Your task to perform on an android device: Go to battery settings Image 0: 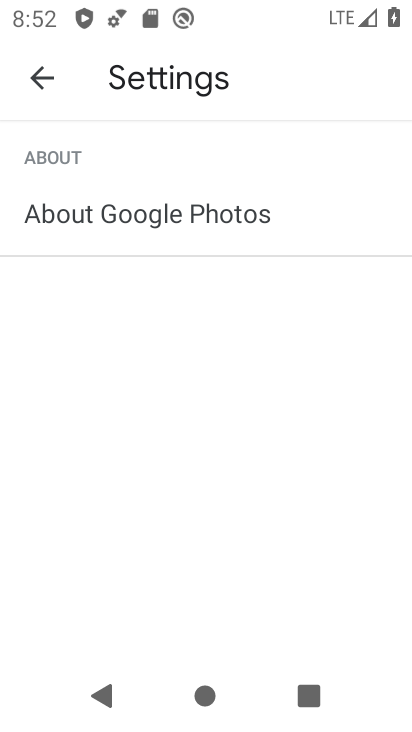
Step 0: press back button
Your task to perform on an android device: Go to battery settings Image 1: 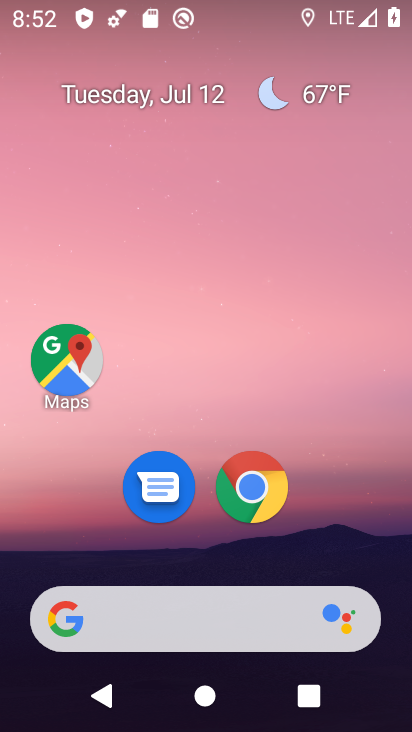
Step 1: drag from (159, 570) to (211, 1)
Your task to perform on an android device: Go to battery settings Image 2: 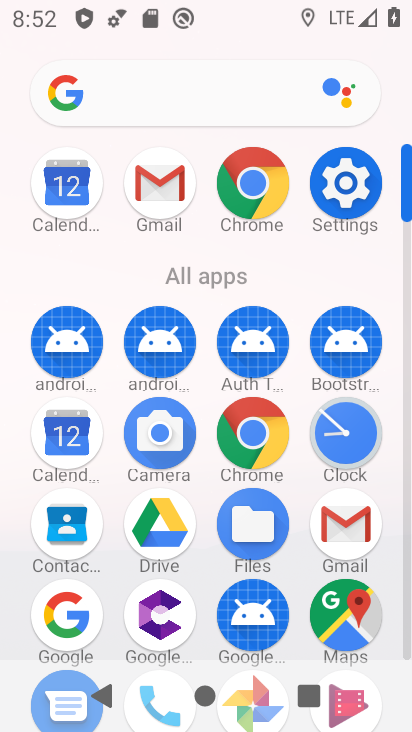
Step 2: click (351, 180)
Your task to perform on an android device: Go to battery settings Image 3: 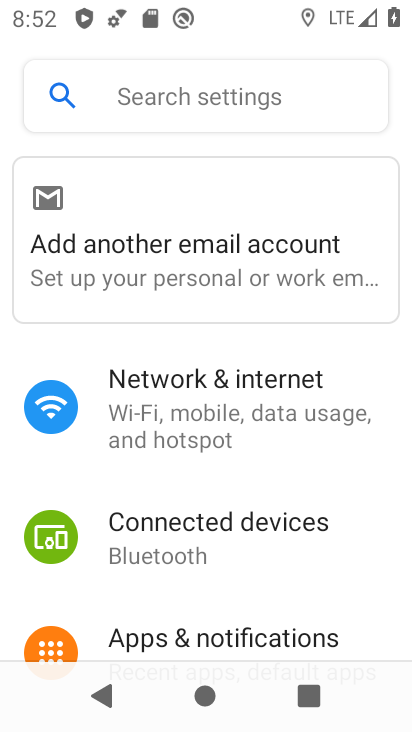
Step 3: drag from (150, 588) to (301, 45)
Your task to perform on an android device: Go to battery settings Image 4: 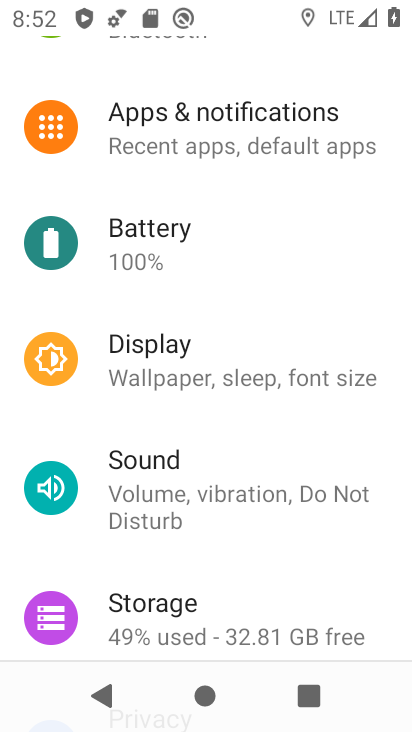
Step 4: click (132, 227)
Your task to perform on an android device: Go to battery settings Image 5: 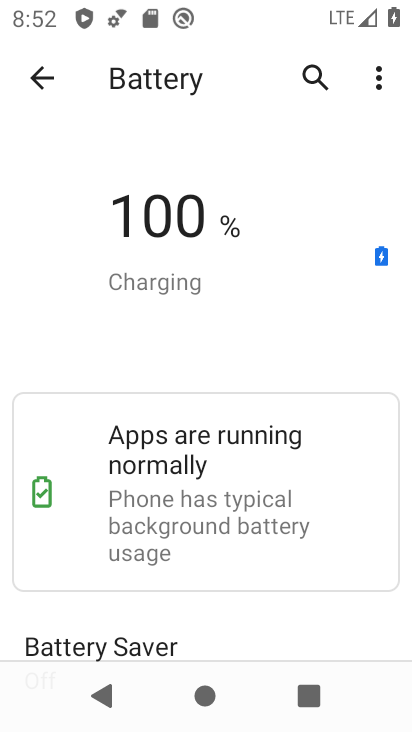
Step 5: task complete